Your task to perform on an android device: turn on showing notifications on the lock screen Image 0: 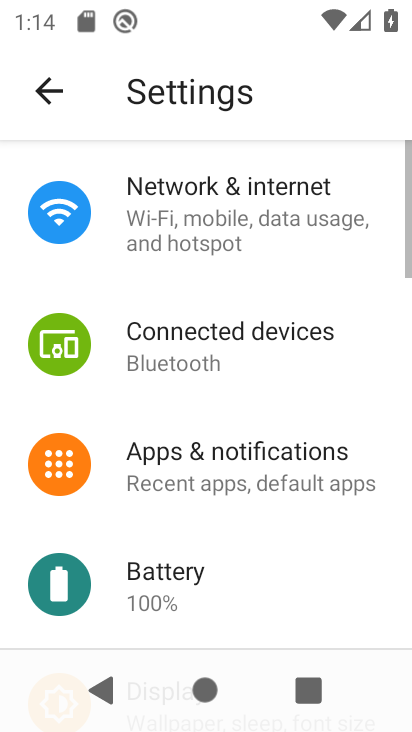
Step 0: press home button
Your task to perform on an android device: turn on showing notifications on the lock screen Image 1: 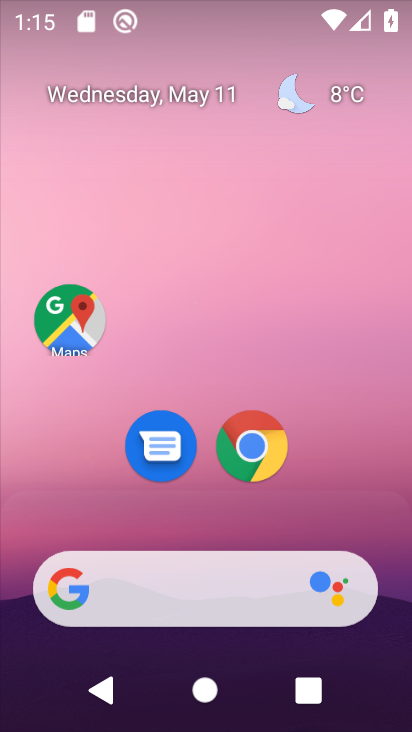
Step 1: drag from (359, 504) to (343, 170)
Your task to perform on an android device: turn on showing notifications on the lock screen Image 2: 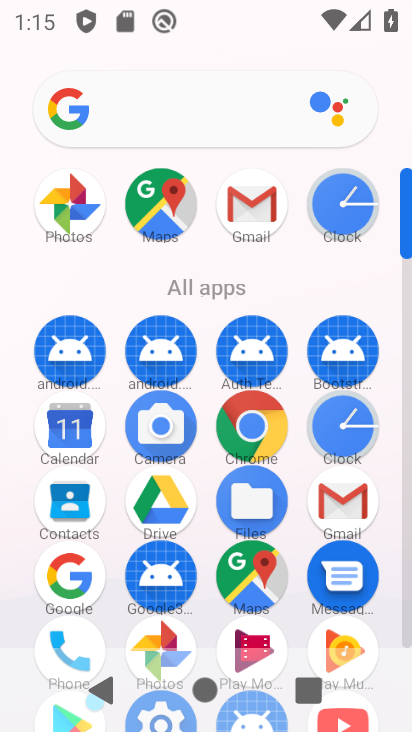
Step 2: drag from (297, 627) to (301, 306)
Your task to perform on an android device: turn on showing notifications on the lock screen Image 3: 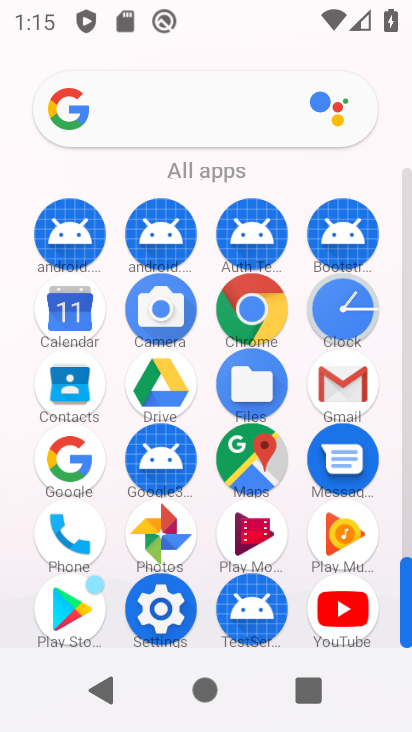
Step 3: click (160, 605)
Your task to perform on an android device: turn on showing notifications on the lock screen Image 4: 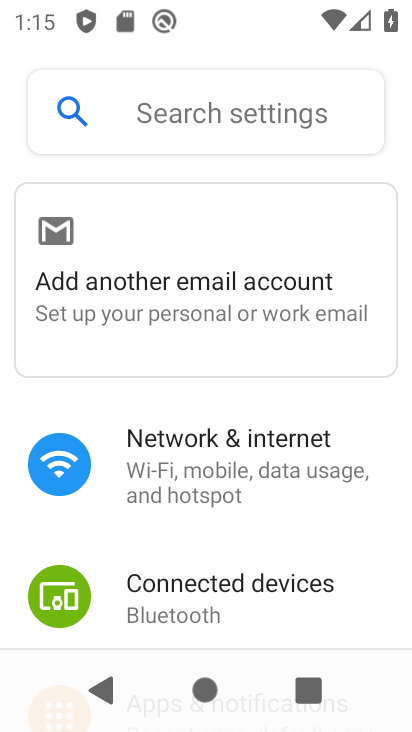
Step 4: drag from (328, 633) to (366, 192)
Your task to perform on an android device: turn on showing notifications on the lock screen Image 5: 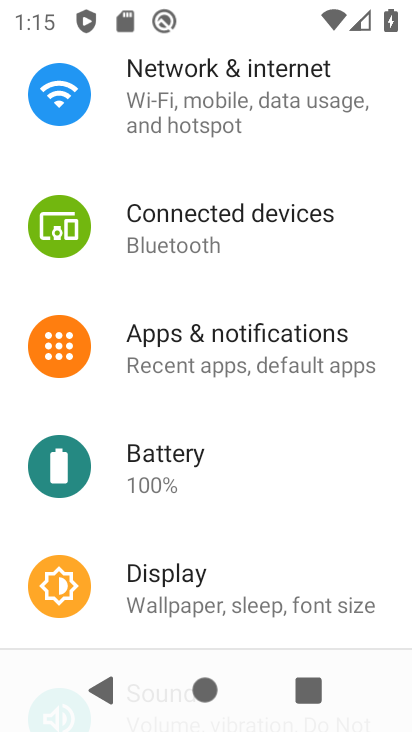
Step 5: drag from (288, 578) to (316, 224)
Your task to perform on an android device: turn on showing notifications on the lock screen Image 6: 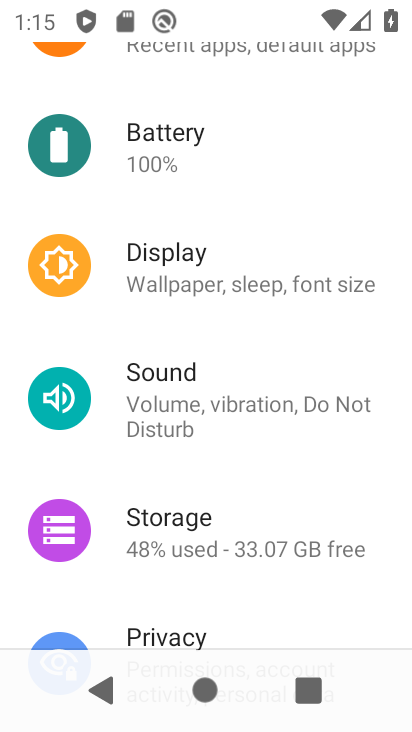
Step 6: drag from (242, 188) to (263, 511)
Your task to perform on an android device: turn on showing notifications on the lock screen Image 7: 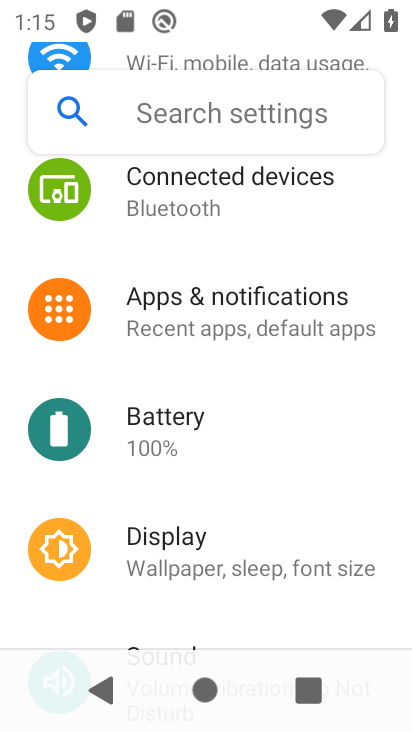
Step 7: click (206, 300)
Your task to perform on an android device: turn on showing notifications on the lock screen Image 8: 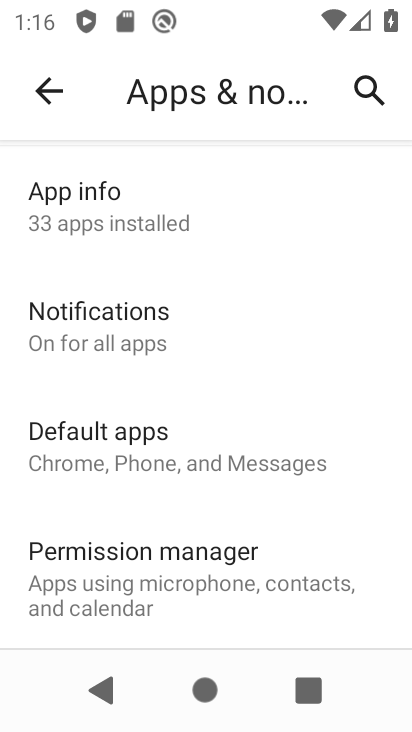
Step 8: click (147, 320)
Your task to perform on an android device: turn on showing notifications on the lock screen Image 9: 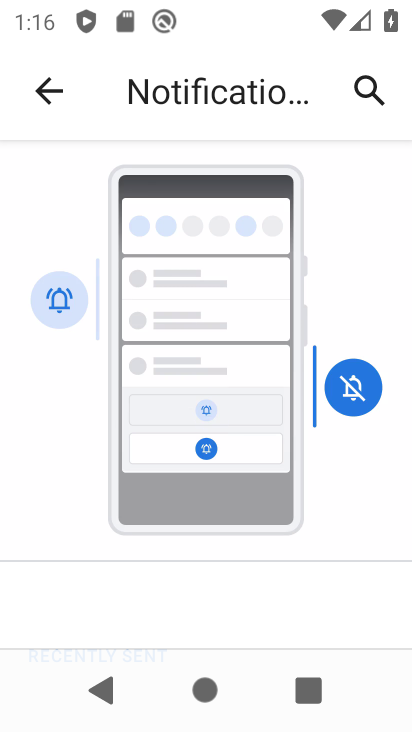
Step 9: drag from (231, 589) to (347, 225)
Your task to perform on an android device: turn on showing notifications on the lock screen Image 10: 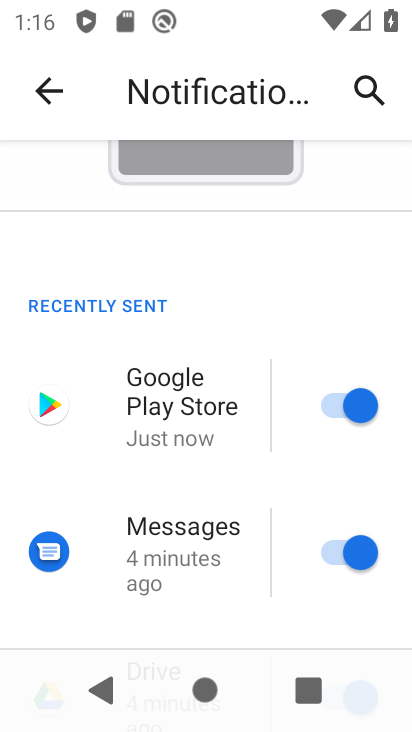
Step 10: drag from (226, 596) to (225, 311)
Your task to perform on an android device: turn on showing notifications on the lock screen Image 11: 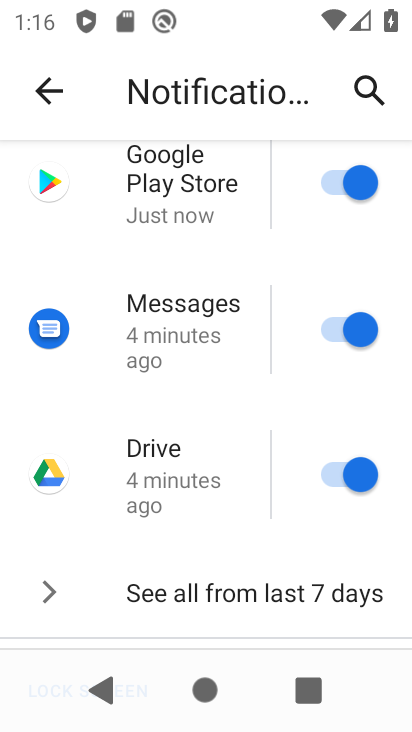
Step 11: drag from (249, 621) to (236, 231)
Your task to perform on an android device: turn on showing notifications on the lock screen Image 12: 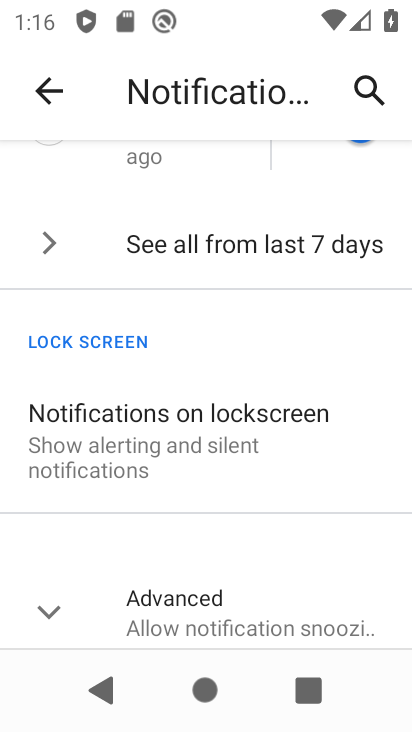
Step 12: click (234, 421)
Your task to perform on an android device: turn on showing notifications on the lock screen Image 13: 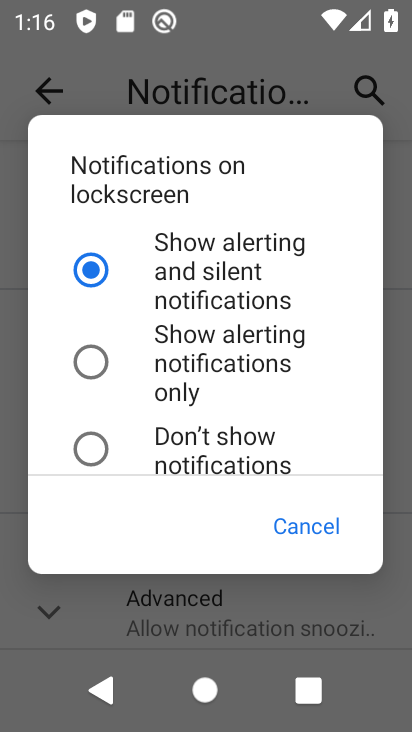
Step 13: task complete